Your task to perform on an android device: turn on priority inbox in the gmail app Image 0: 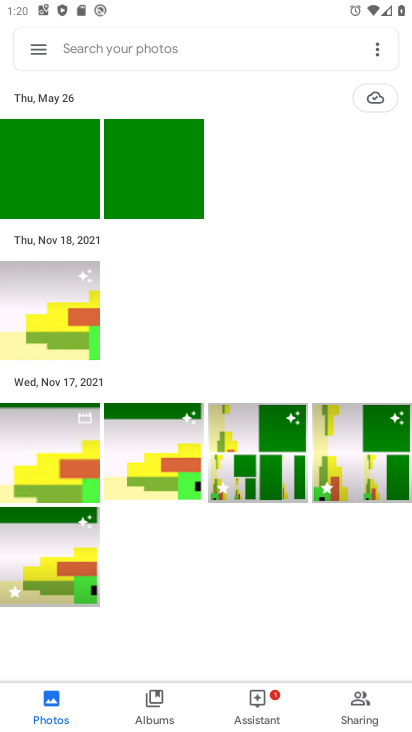
Step 0: press home button
Your task to perform on an android device: turn on priority inbox in the gmail app Image 1: 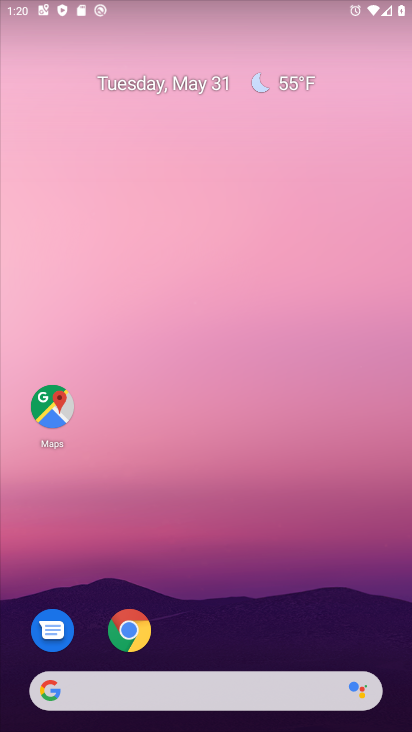
Step 1: drag from (175, 654) to (233, 278)
Your task to perform on an android device: turn on priority inbox in the gmail app Image 2: 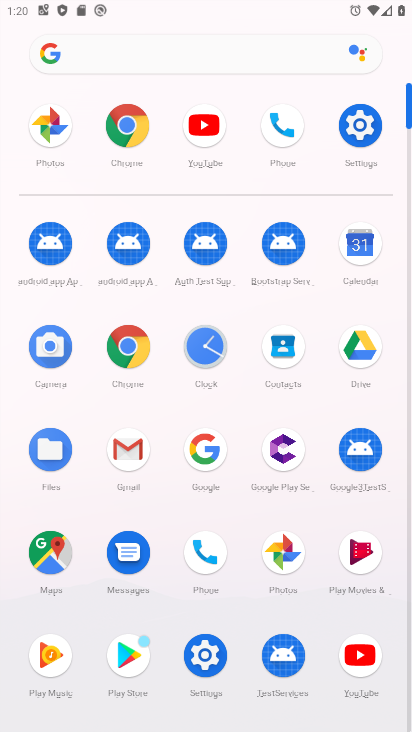
Step 2: click (124, 460)
Your task to perform on an android device: turn on priority inbox in the gmail app Image 3: 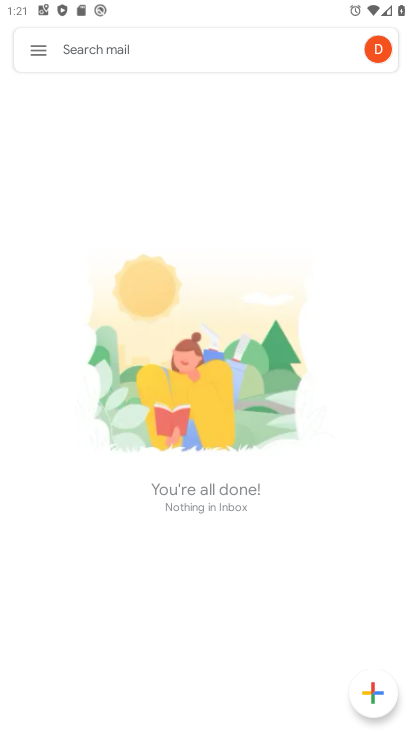
Step 3: click (45, 48)
Your task to perform on an android device: turn on priority inbox in the gmail app Image 4: 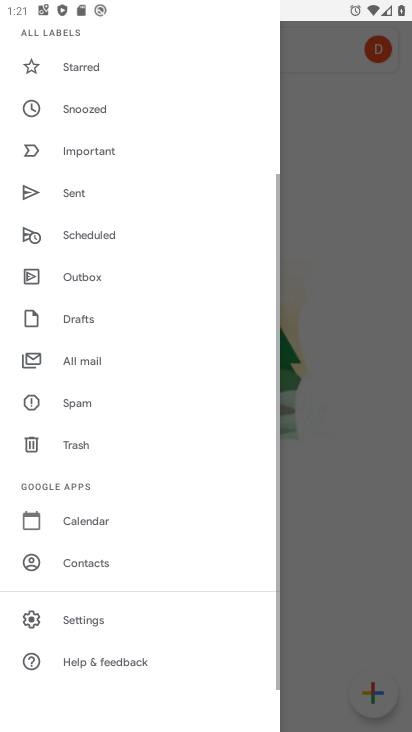
Step 4: click (89, 621)
Your task to perform on an android device: turn on priority inbox in the gmail app Image 5: 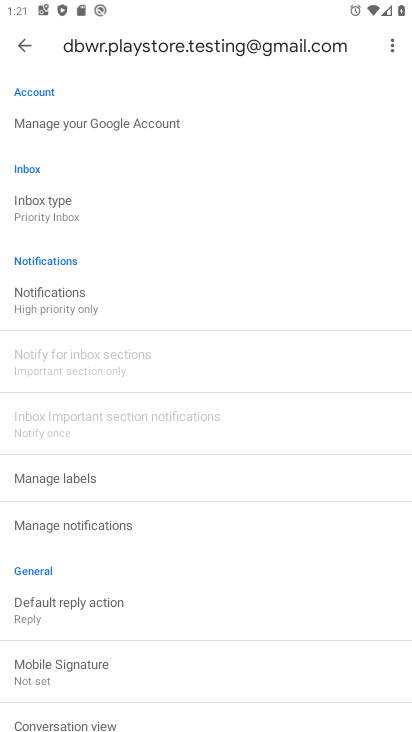
Step 5: task complete